Your task to perform on an android device: turn on javascript in the chrome app Image 0: 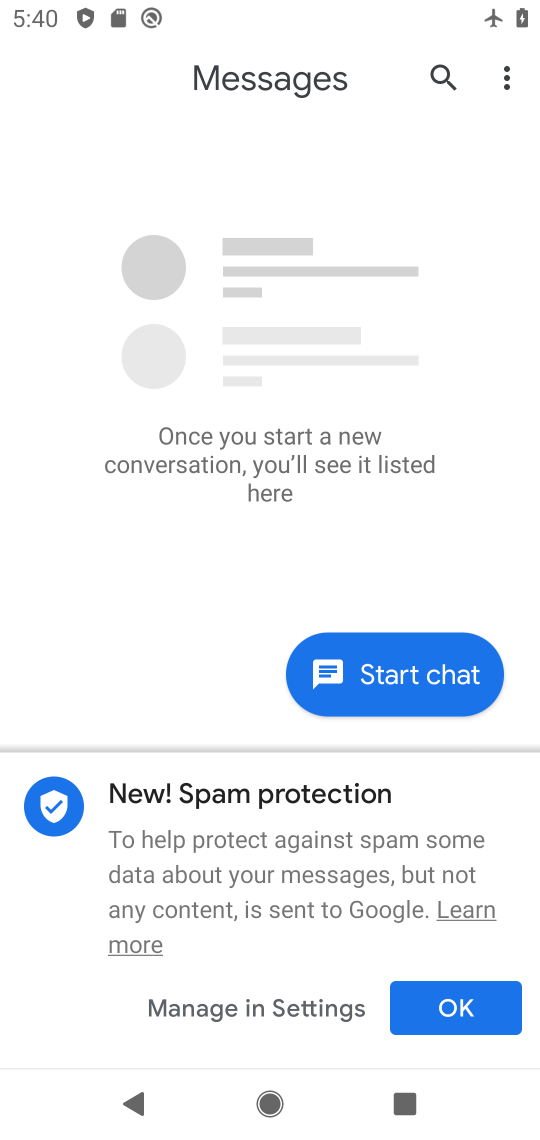
Step 0: press home button
Your task to perform on an android device: turn on javascript in the chrome app Image 1: 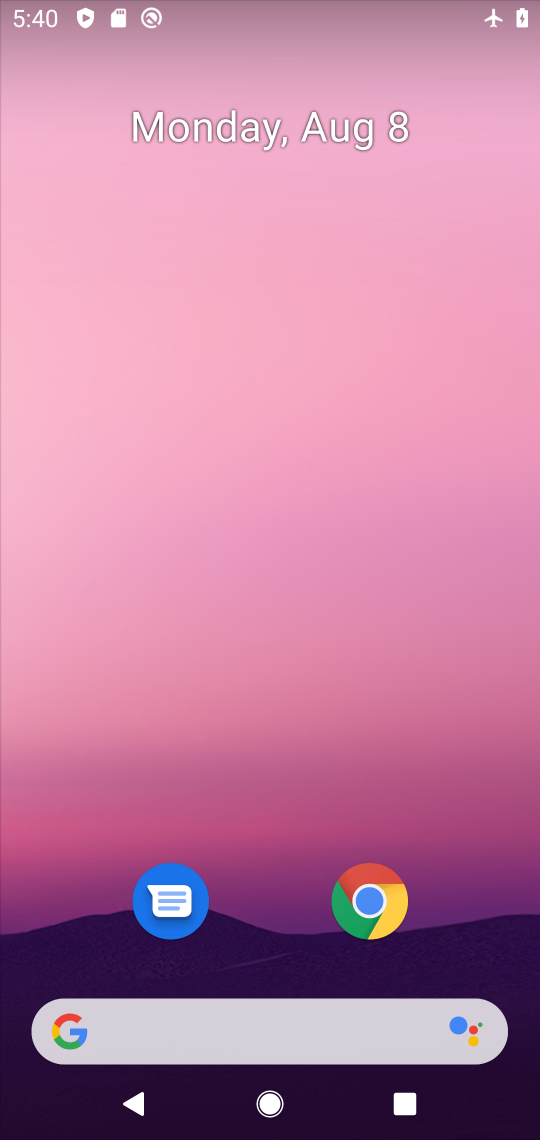
Step 1: drag from (500, 940) to (355, 107)
Your task to perform on an android device: turn on javascript in the chrome app Image 2: 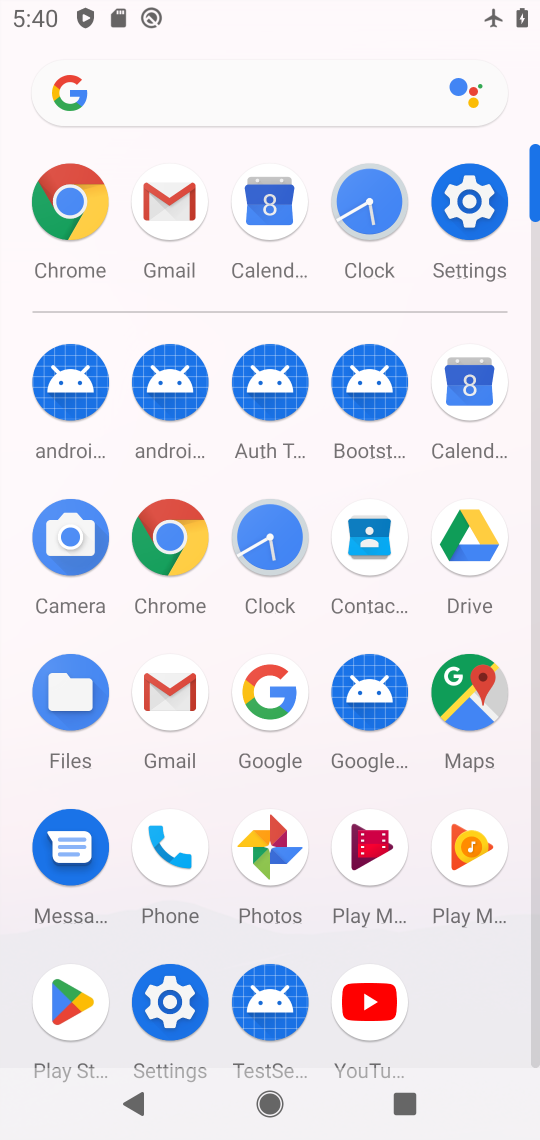
Step 2: click (70, 200)
Your task to perform on an android device: turn on javascript in the chrome app Image 3: 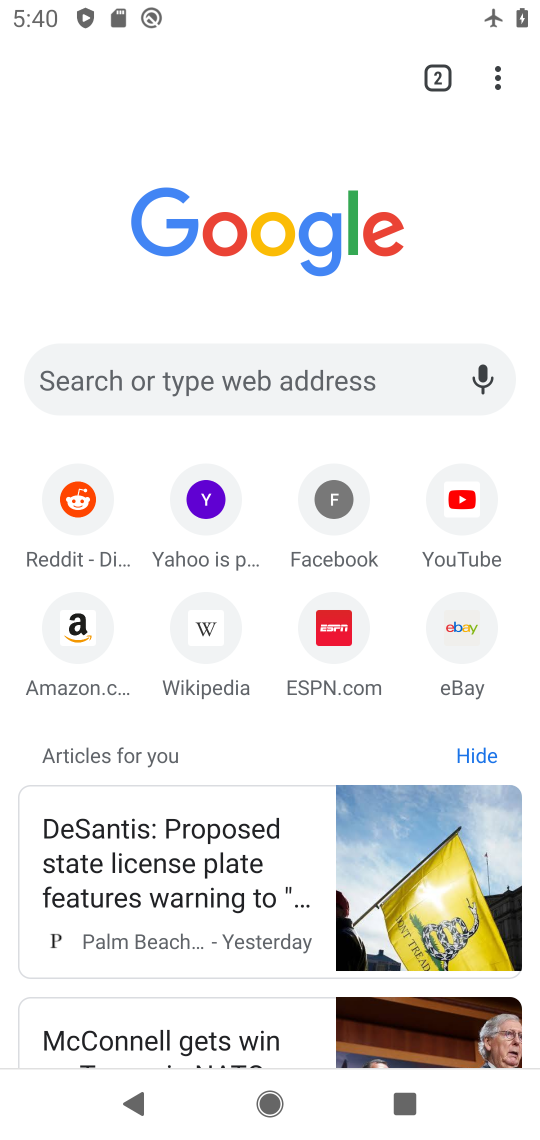
Step 3: click (504, 73)
Your task to perform on an android device: turn on javascript in the chrome app Image 4: 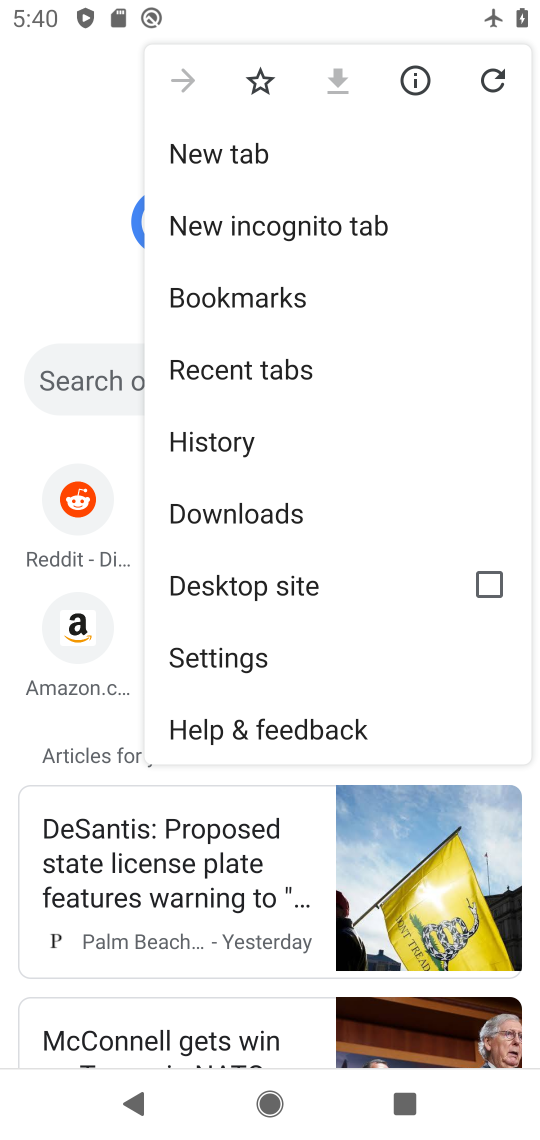
Step 4: click (259, 670)
Your task to perform on an android device: turn on javascript in the chrome app Image 5: 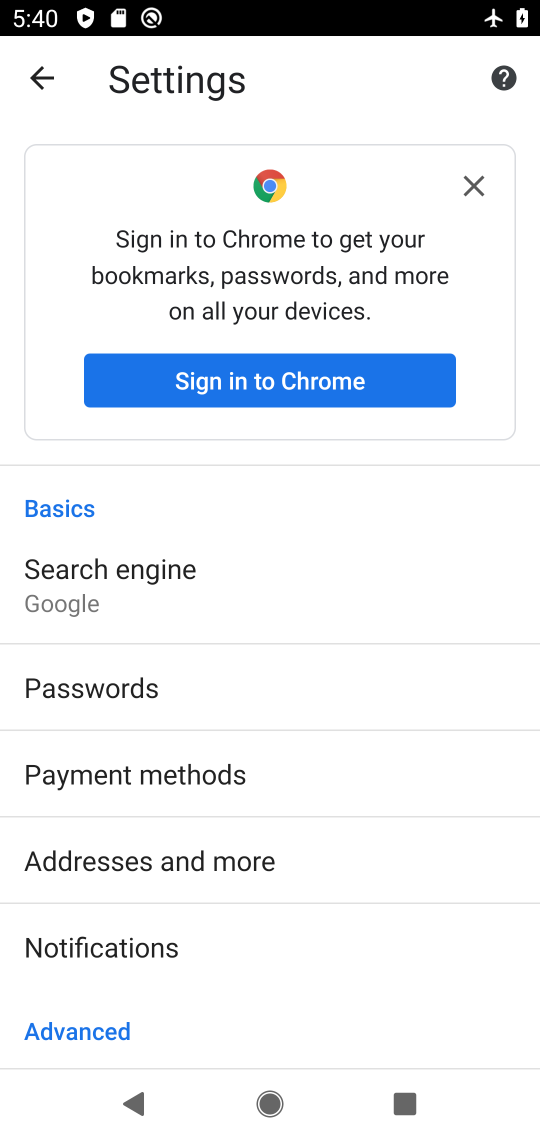
Step 5: drag from (349, 944) to (264, 270)
Your task to perform on an android device: turn on javascript in the chrome app Image 6: 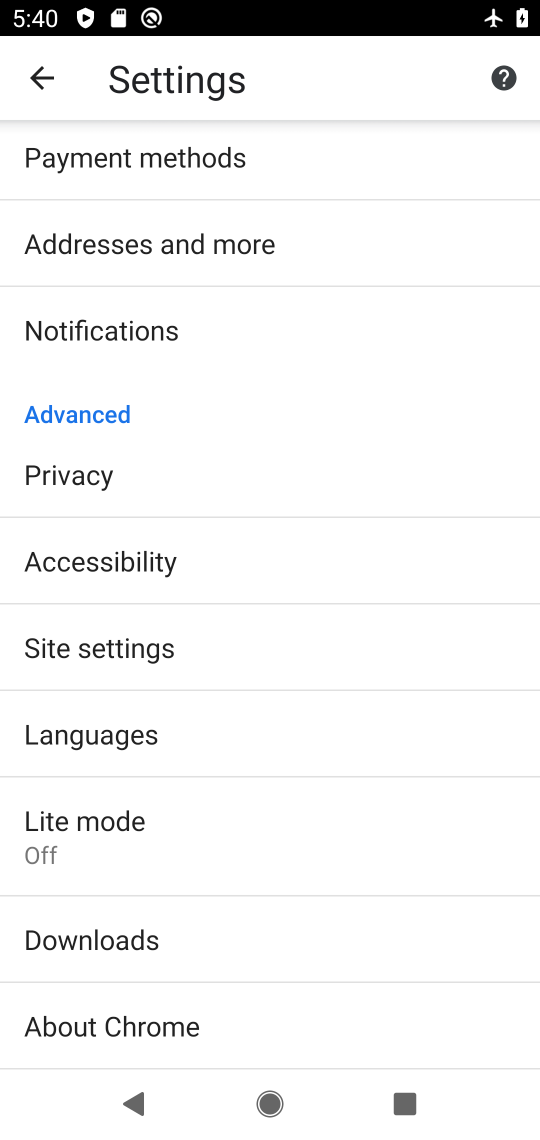
Step 6: click (334, 654)
Your task to perform on an android device: turn on javascript in the chrome app Image 7: 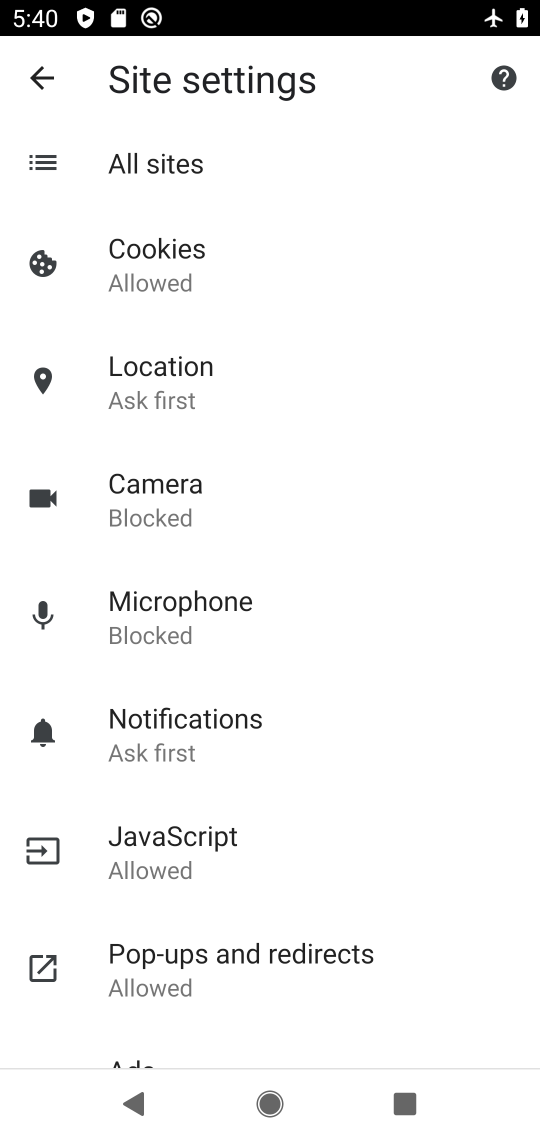
Step 7: drag from (344, 914) to (304, 526)
Your task to perform on an android device: turn on javascript in the chrome app Image 8: 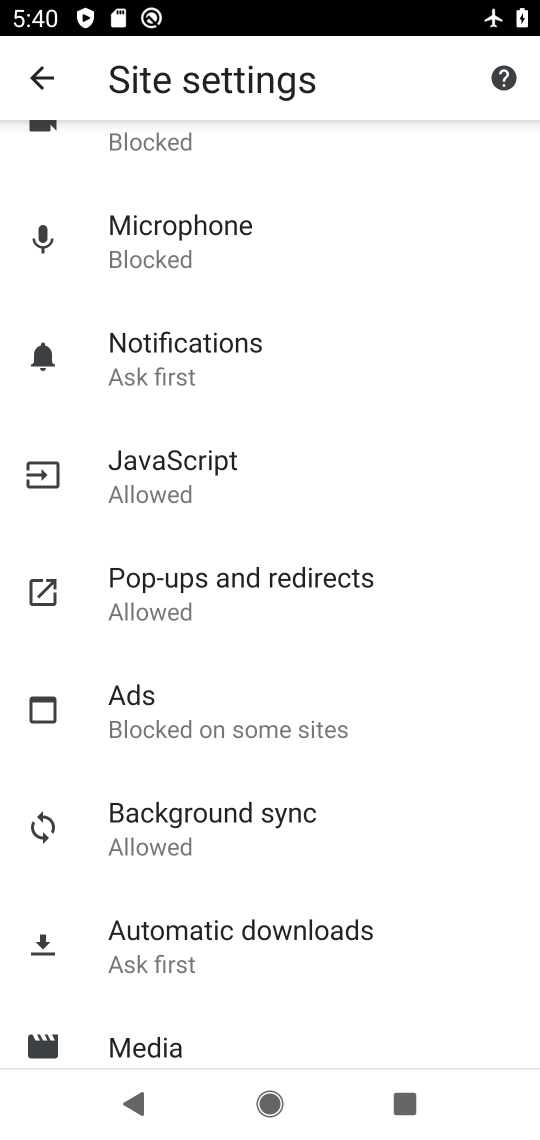
Step 8: click (279, 473)
Your task to perform on an android device: turn on javascript in the chrome app Image 9: 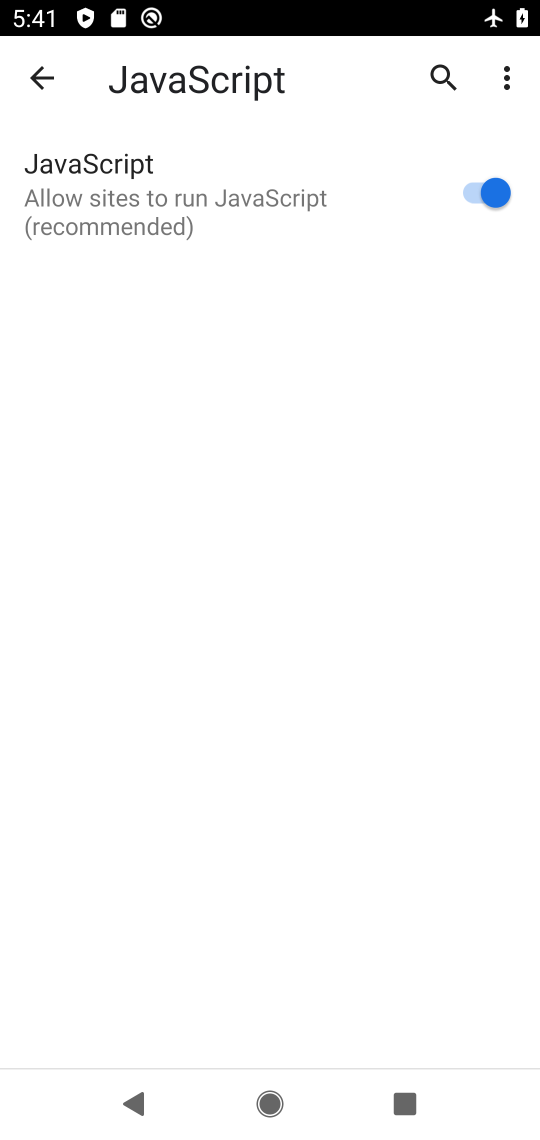
Step 9: task complete